Your task to perform on an android device: Go to Google maps Image 0: 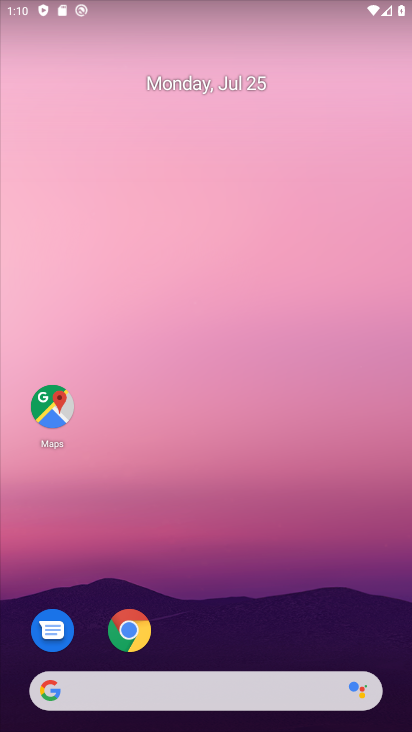
Step 0: click (34, 440)
Your task to perform on an android device: Go to Google maps Image 1: 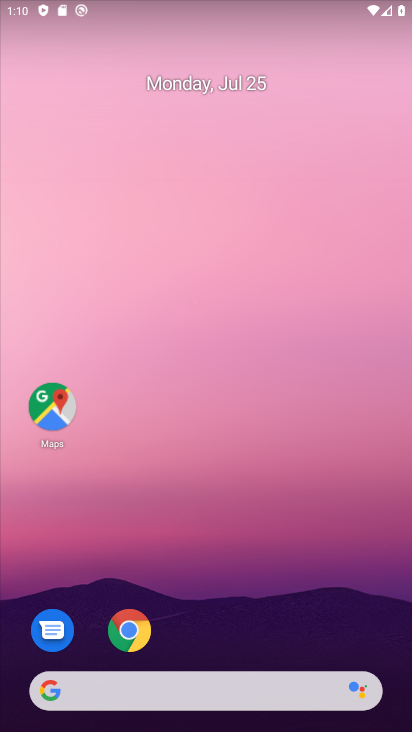
Step 1: task complete